Your task to perform on an android device: Find coffee shops on Maps Image 0: 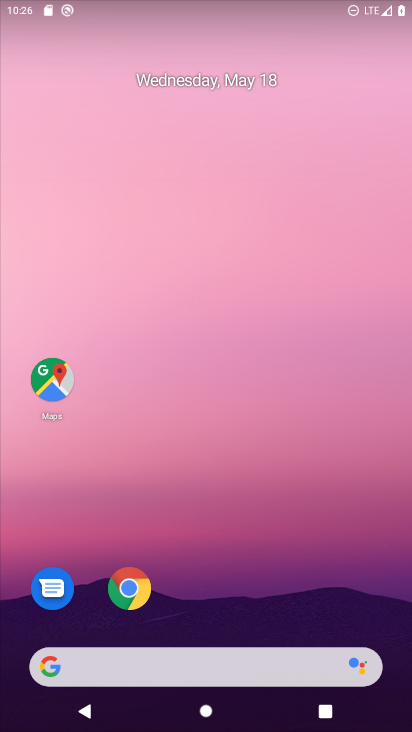
Step 0: click (52, 375)
Your task to perform on an android device: Find coffee shops on Maps Image 1: 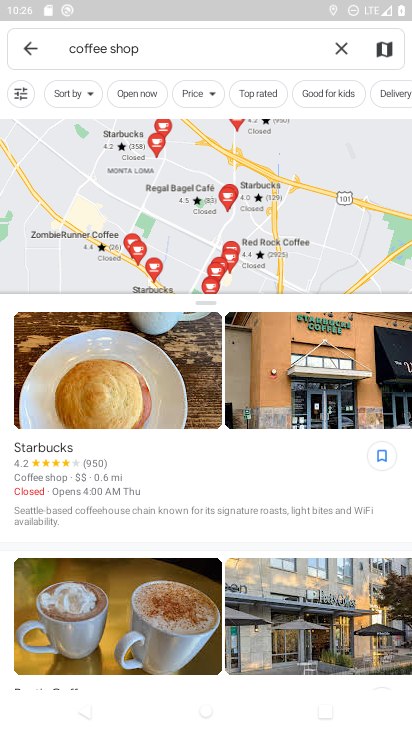
Step 1: task complete